Your task to perform on an android device: snooze an email in the gmail app Image 0: 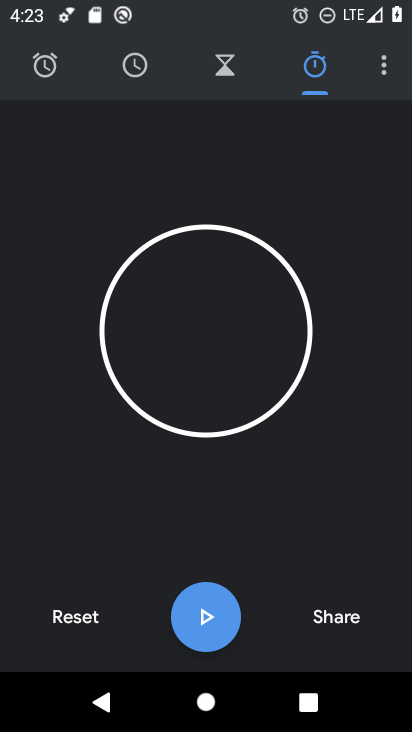
Step 0: press home button
Your task to perform on an android device: snooze an email in the gmail app Image 1: 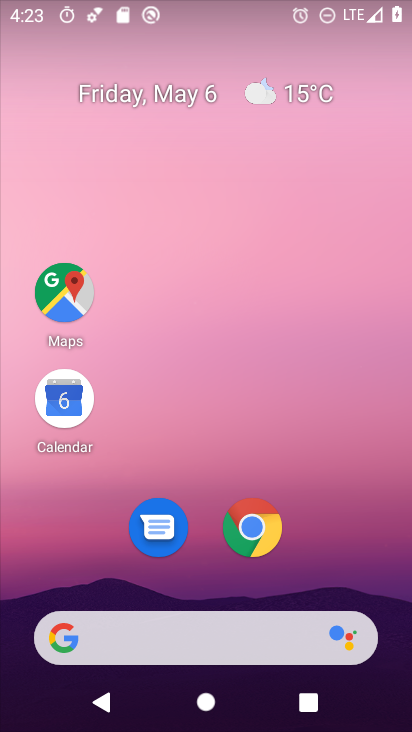
Step 1: drag from (325, 557) to (339, 146)
Your task to perform on an android device: snooze an email in the gmail app Image 2: 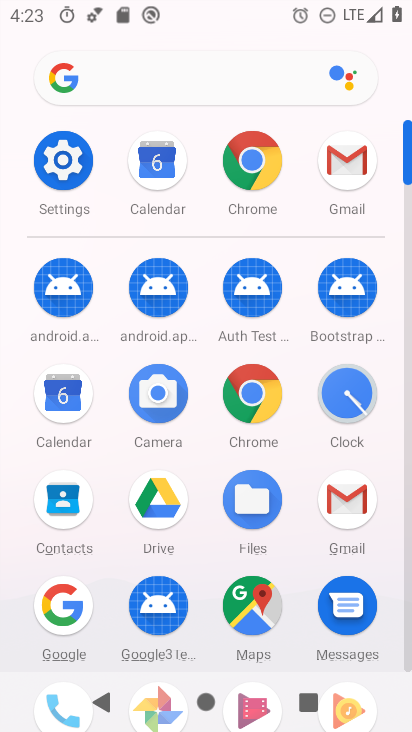
Step 2: click (360, 162)
Your task to perform on an android device: snooze an email in the gmail app Image 3: 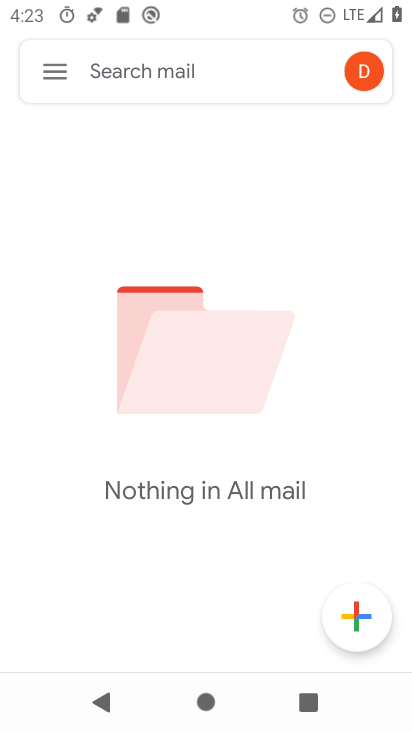
Step 3: click (59, 75)
Your task to perform on an android device: snooze an email in the gmail app Image 4: 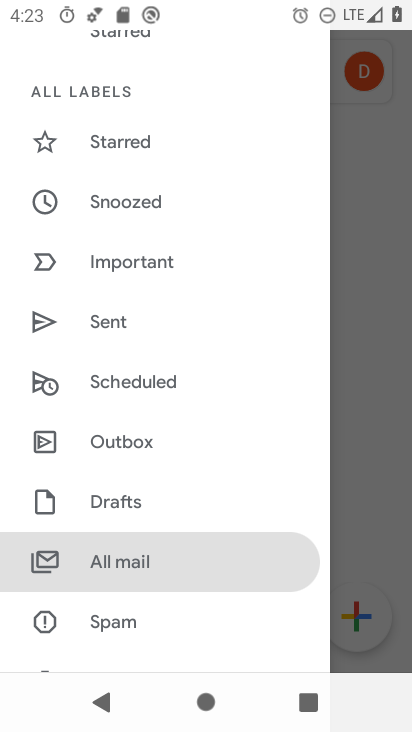
Step 4: drag from (199, 251) to (198, 444)
Your task to perform on an android device: snooze an email in the gmail app Image 5: 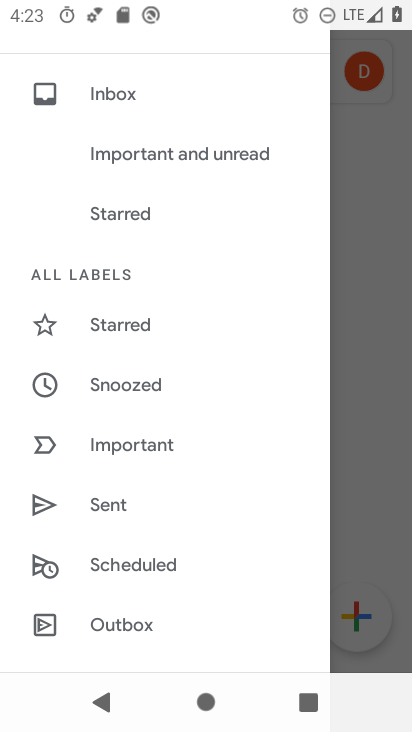
Step 5: drag from (198, 444) to (245, 94)
Your task to perform on an android device: snooze an email in the gmail app Image 6: 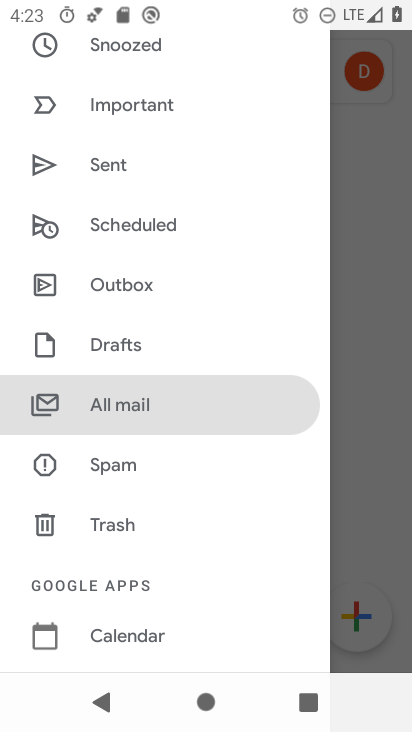
Step 6: drag from (223, 251) to (218, 466)
Your task to perform on an android device: snooze an email in the gmail app Image 7: 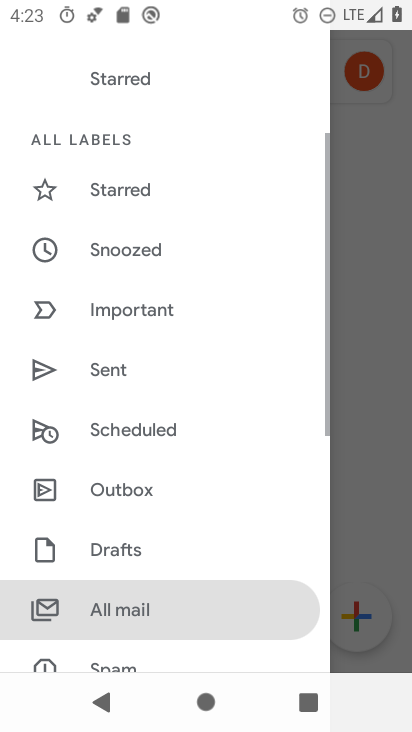
Step 7: drag from (216, 450) to (260, 156)
Your task to perform on an android device: snooze an email in the gmail app Image 8: 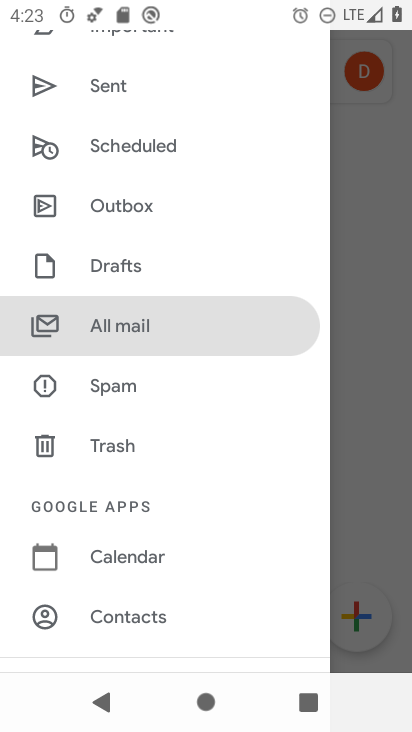
Step 8: drag from (186, 413) to (256, 203)
Your task to perform on an android device: snooze an email in the gmail app Image 9: 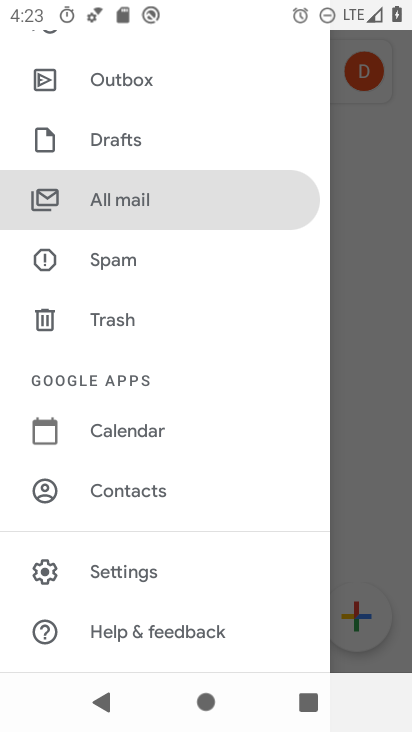
Step 9: drag from (179, 228) to (190, 515)
Your task to perform on an android device: snooze an email in the gmail app Image 10: 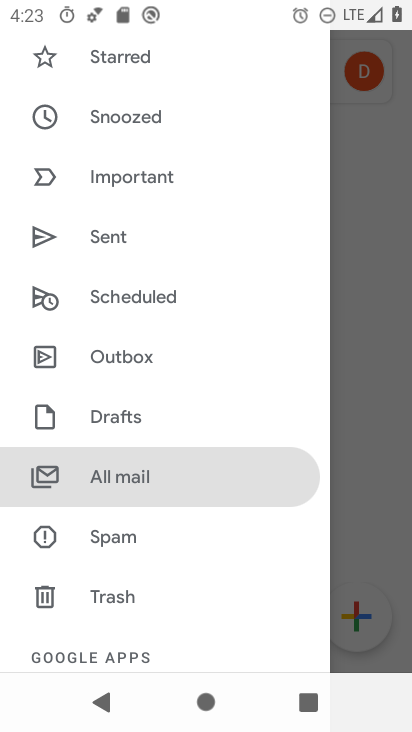
Step 10: drag from (199, 365) to (179, 561)
Your task to perform on an android device: snooze an email in the gmail app Image 11: 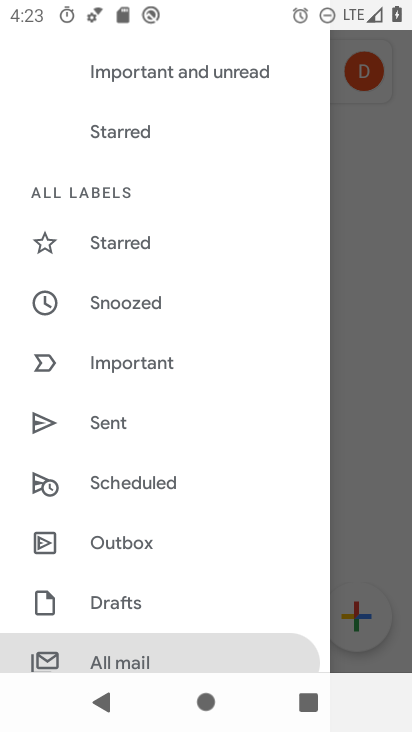
Step 11: drag from (180, 567) to (213, 394)
Your task to perform on an android device: snooze an email in the gmail app Image 12: 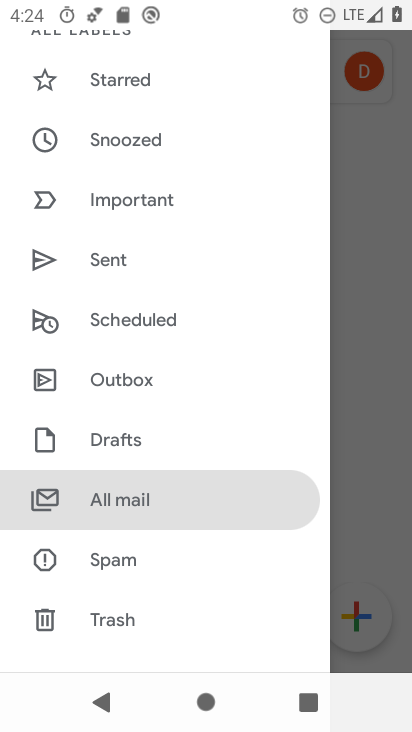
Step 12: click (134, 509)
Your task to perform on an android device: snooze an email in the gmail app Image 13: 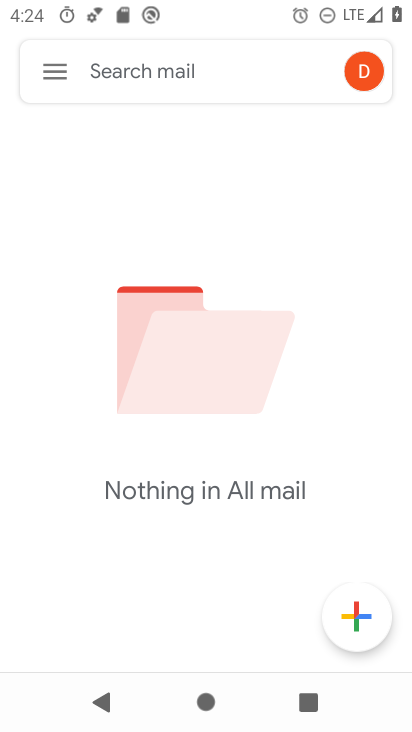
Step 13: task complete